Your task to perform on an android device: turn off notifications in google photos Image 0: 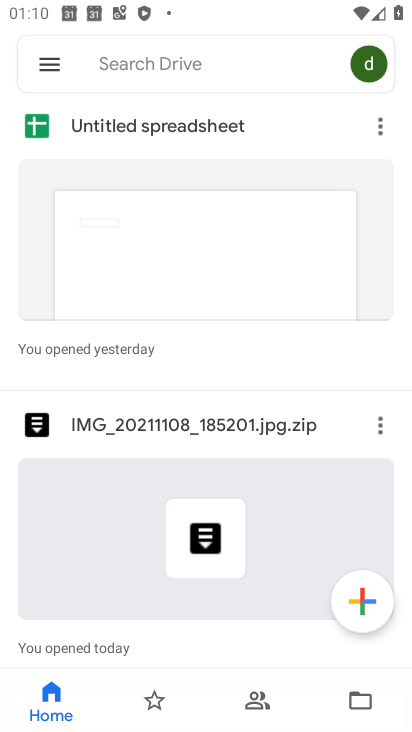
Step 0: press home button
Your task to perform on an android device: turn off notifications in google photos Image 1: 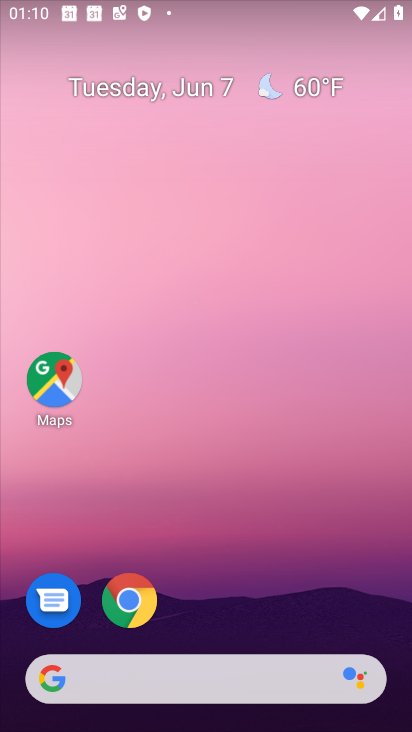
Step 1: drag from (240, 723) to (242, 164)
Your task to perform on an android device: turn off notifications in google photos Image 2: 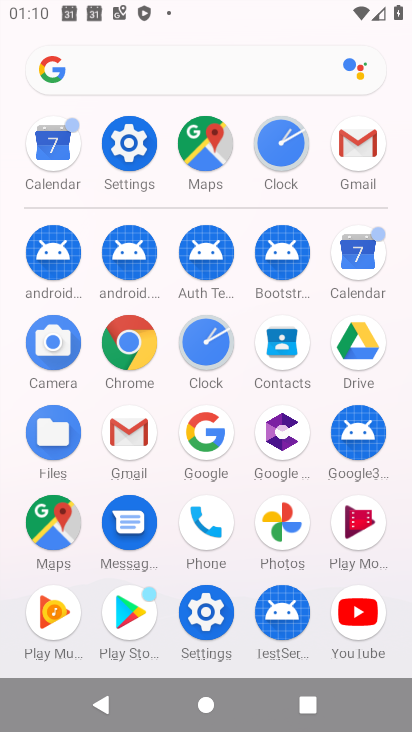
Step 2: click (288, 512)
Your task to perform on an android device: turn off notifications in google photos Image 3: 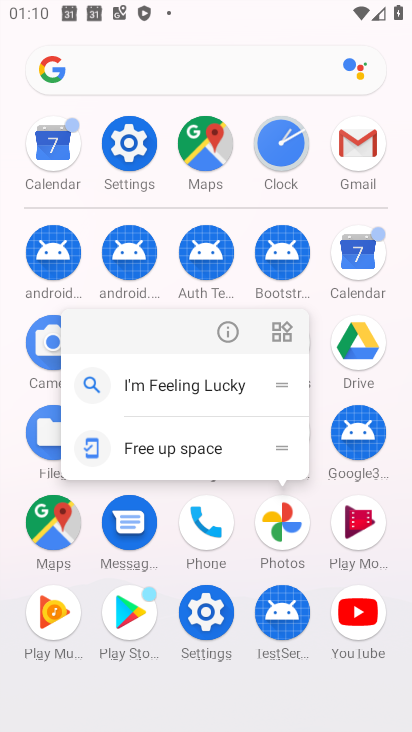
Step 3: click (275, 522)
Your task to perform on an android device: turn off notifications in google photos Image 4: 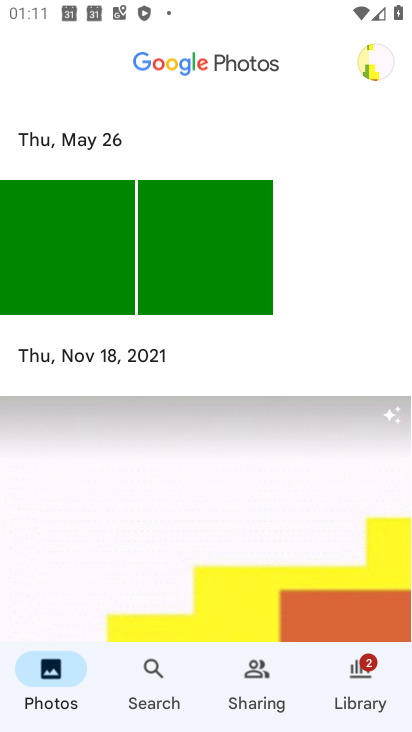
Step 4: click (370, 66)
Your task to perform on an android device: turn off notifications in google photos Image 5: 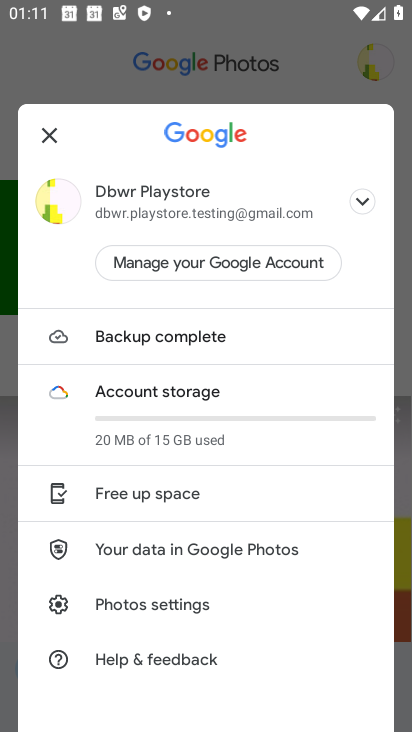
Step 5: drag from (139, 652) to (139, 379)
Your task to perform on an android device: turn off notifications in google photos Image 6: 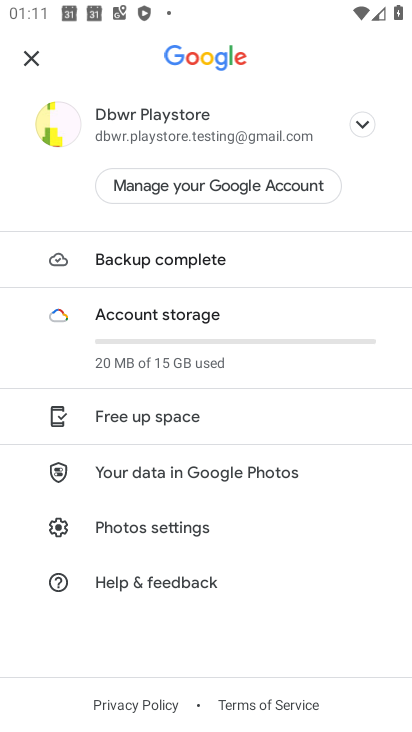
Step 6: click (163, 527)
Your task to perform on an android device: turn off notifications in google photos Image 7: 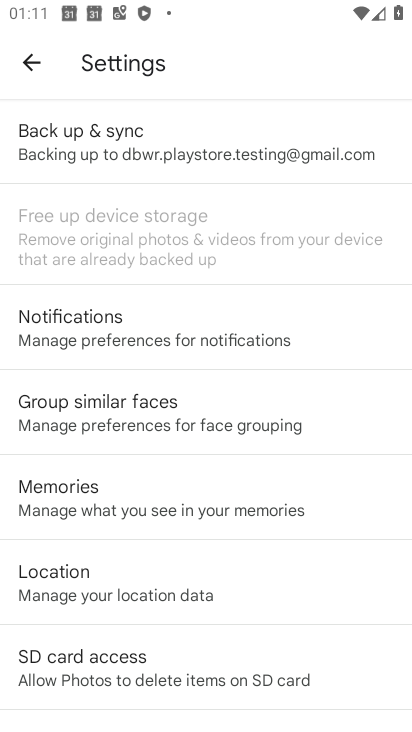
Step 7: click (99, 340)
Your task to perform on an android device: turn off notifications in google photos Image 8: 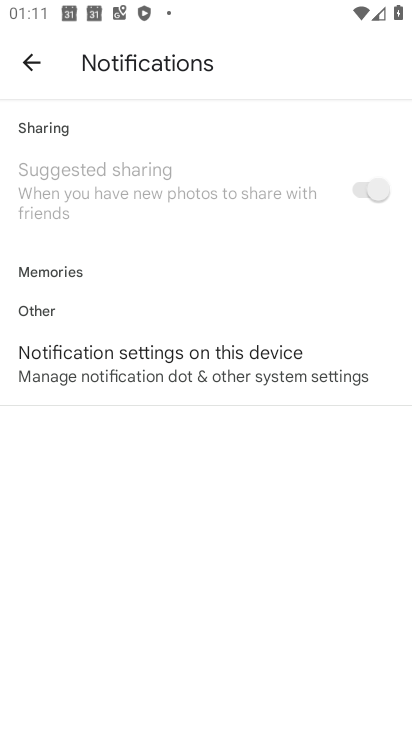
Step 8: click (143, 369)
Your task to perform on an android device: turn off notifications in google photos Image 9: 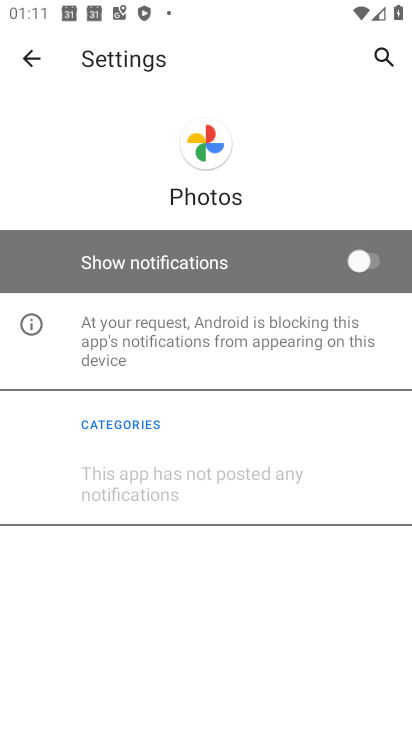
Step 9: task complete